Your task to perform on an android device: Open maps Image 0: 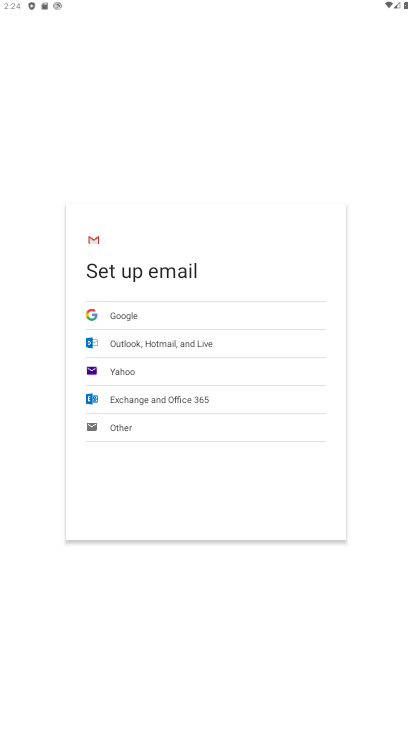
Step 0: press home button
Your task to perform on an android device: Open maps Image 1: 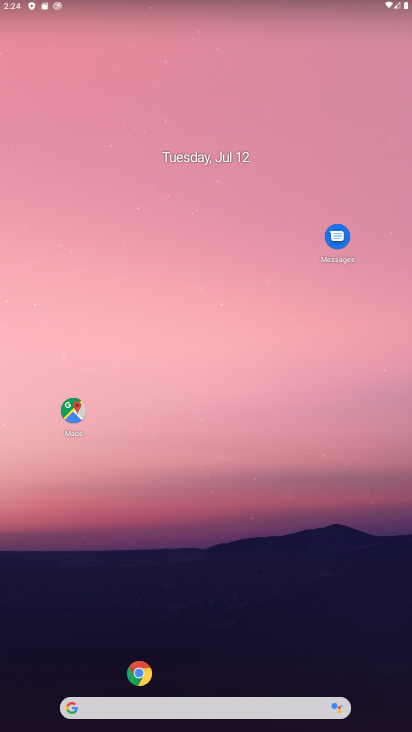
Step 1: click (84, 399)
Your task to perform on an android device: Open maps Image 2: 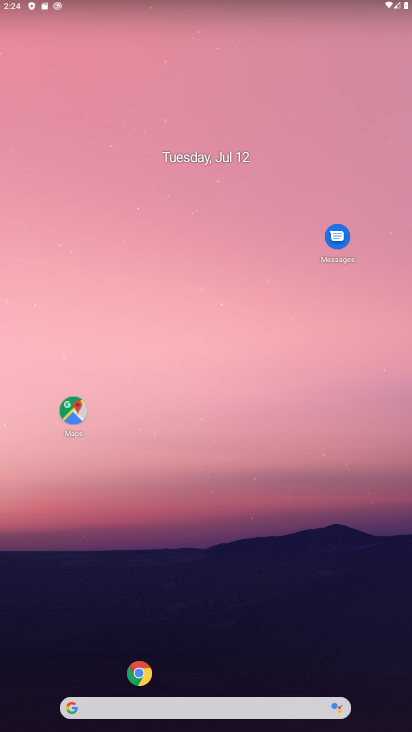
Step 2: click (81, 389)
Your task to perform on an android device: Open maps Image 3: 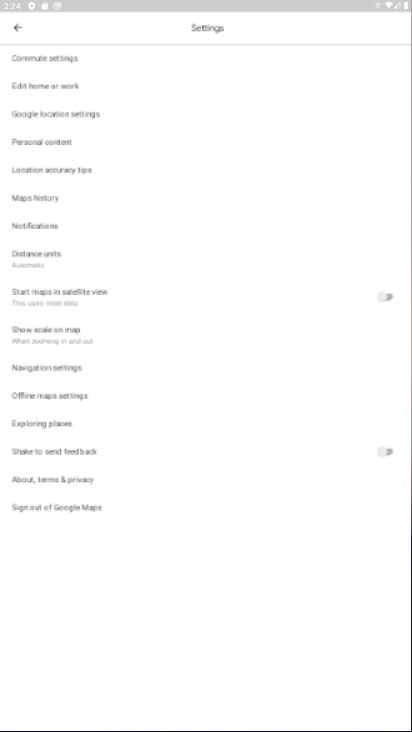
Step 3: click (72, 400)
Your task to perform on an android device: Open maps Image 4: 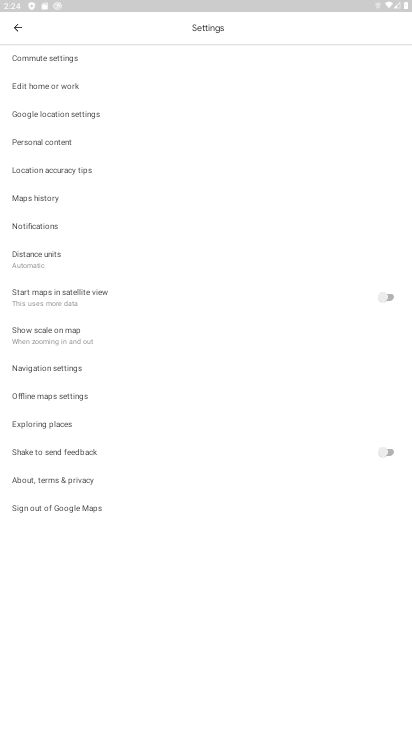
Step 4: click (21, 27)
Your task to perform on an android device: Open maps Image 5: 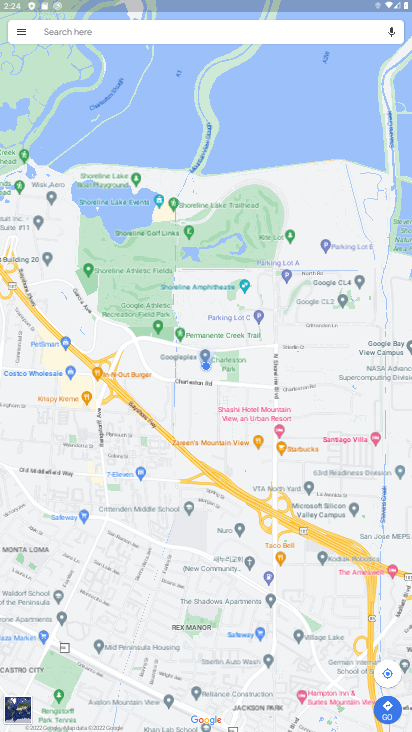
Step 5: task complete